Your task to perform on an android device: What is the news today? Image 0: 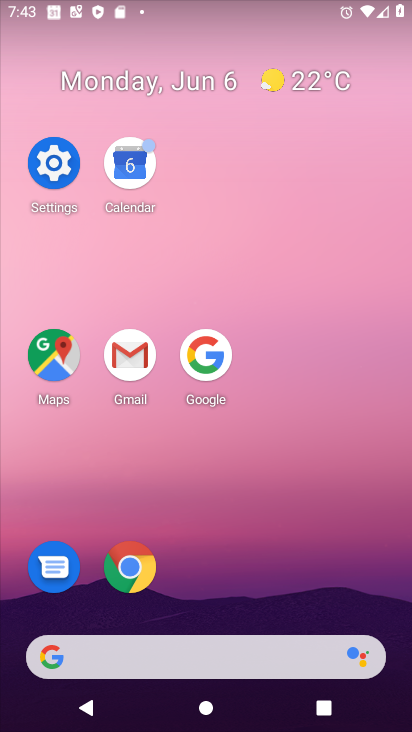
Step 0: click (221, 369)
Your task to perform on an android device: What is the news today? Image 1: 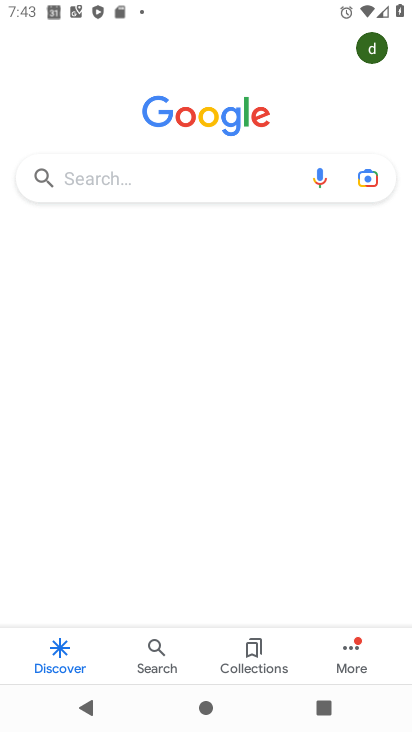
Step 1: click (200, 175)
Your task to perform on an android device: What is the news today? Image 2: 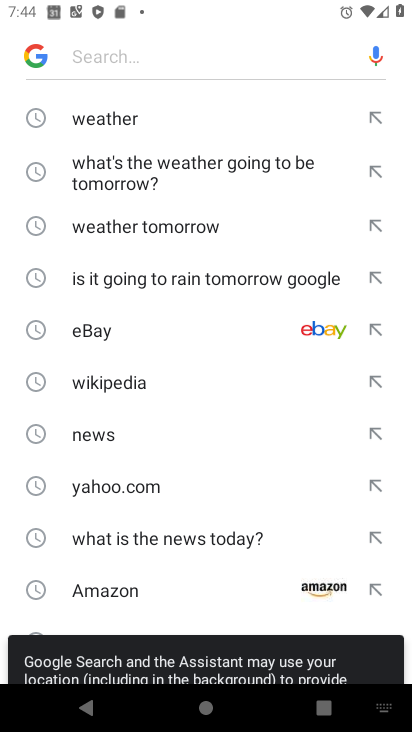
Step 2: click (77, 442)
Your task to perform on an android device: What is the news today? Image 3: 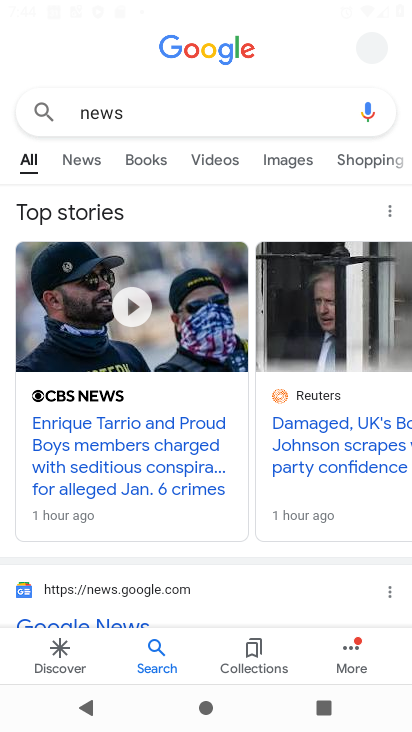
Step 3: task complete